Your task to perform on an android device: change the clock style Image 0: 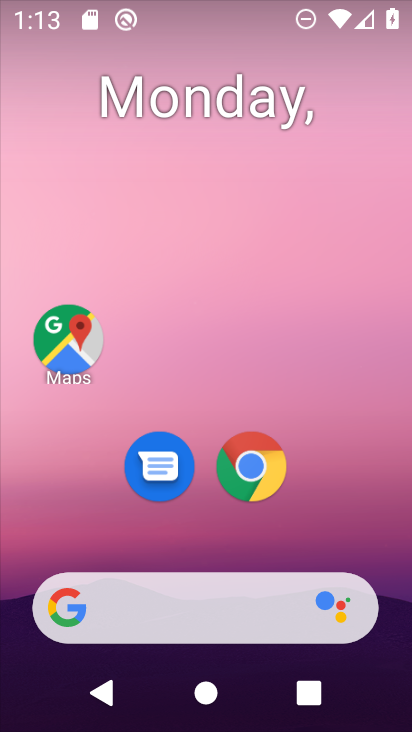
Step 0: drag from (208, 560) to (246, 25)
Your task to perform on an android device: change the clock style Image 1: 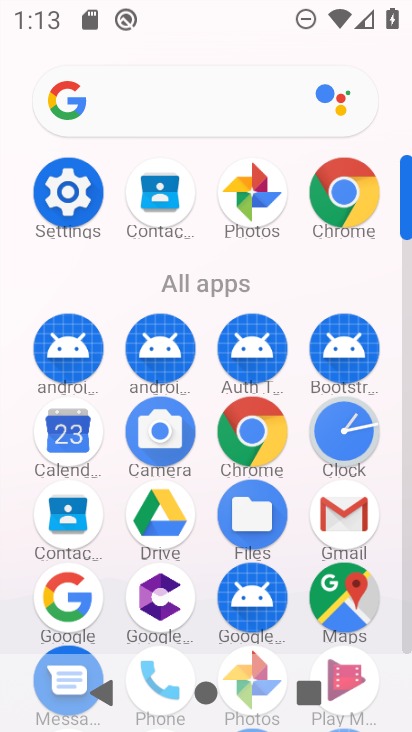
Step 1: click (351, 437)
Your task to perform on an android device: change the clock style Image 2: 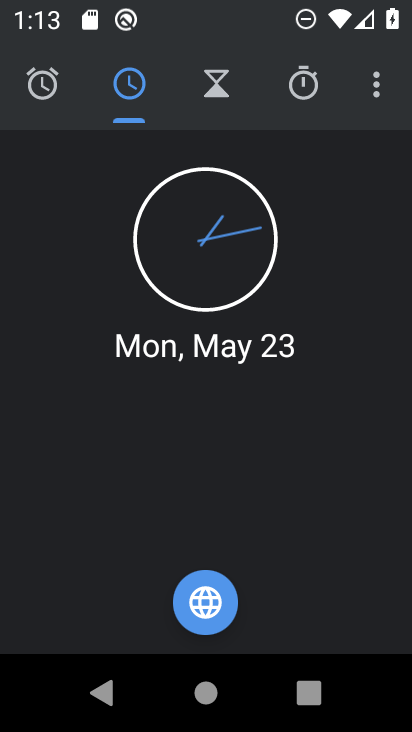
Step 2: click (378, 68)
Your task to perform on an android device: change the clock style Image 3: 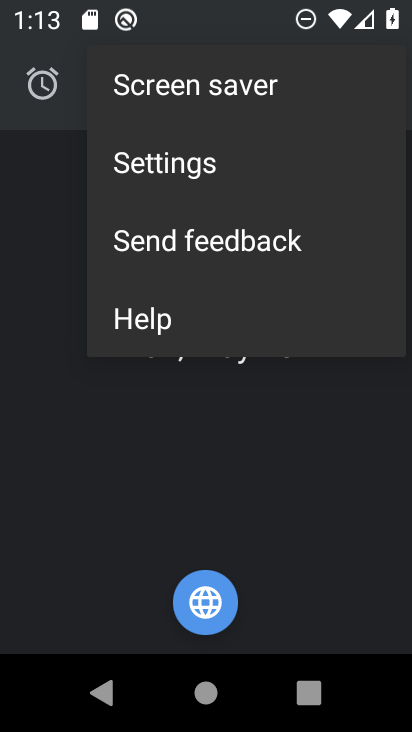
Step 3: click (163, 166)
Your task to perform on an android device: change the clock style Image 4: 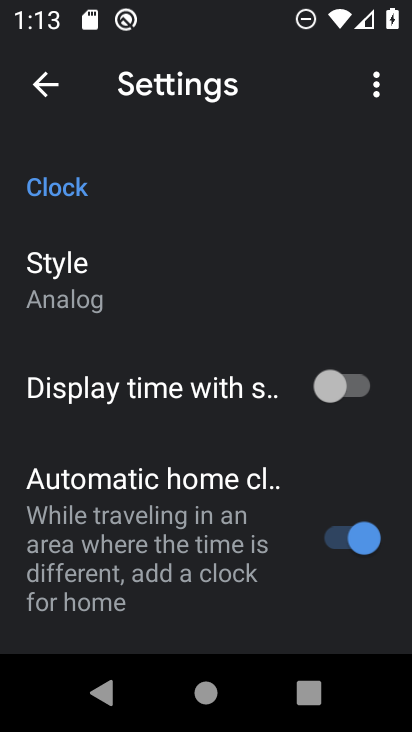
Step 4: click (103, 296)
Your task to perform on an android device: change the clock style Image 5: 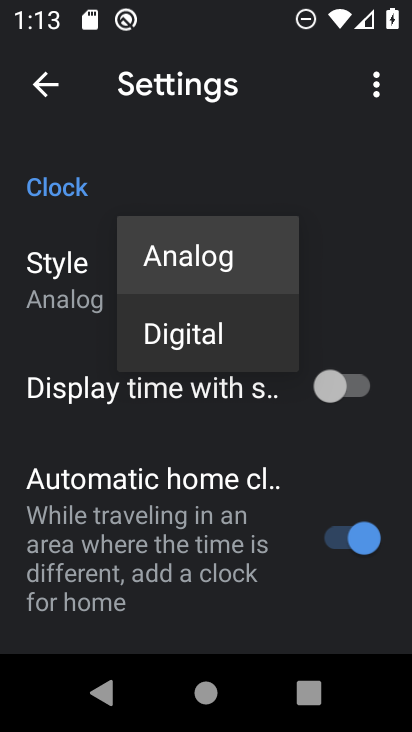
Step 5: click (164, 337)
Your task to perform on an android device: change the clock style Image 6: 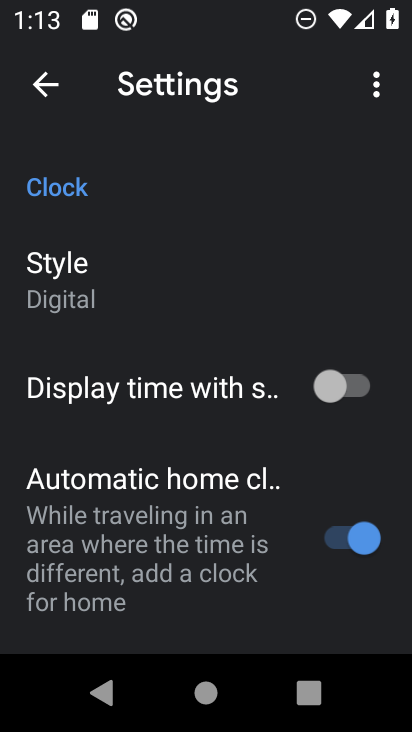
Step 6: task complete